Your task to perform on an android device: toggle pop-ups in chrome Image 0: 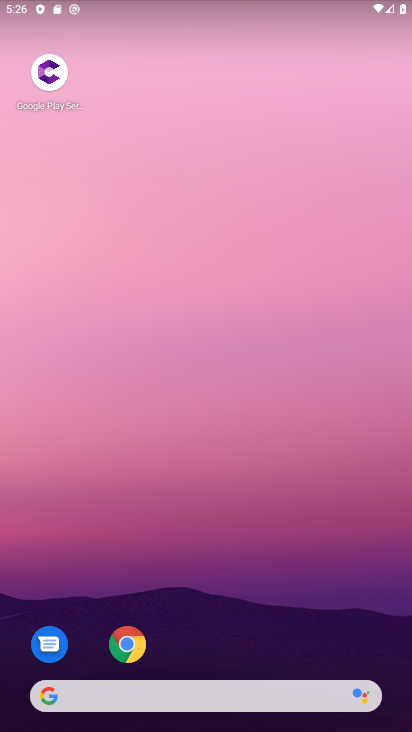
Step 0: click (127, 638)
Your task to perform on an android device: toggle pop-ups in chrome Image 1: 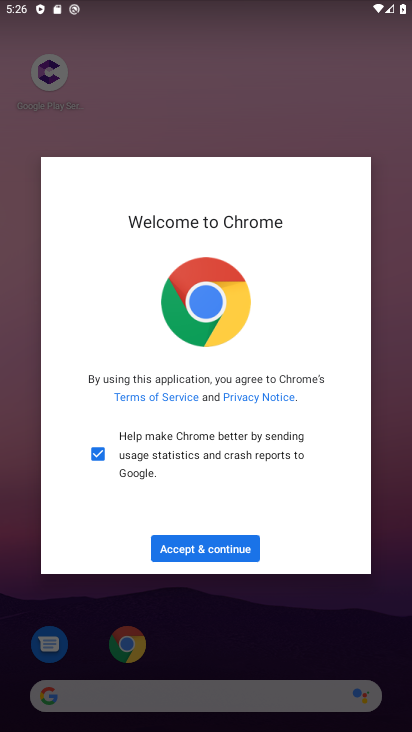
Step 1: click (195, 549)
Your task to perform on an android device: toggle pop-ups in chrome Image 2: 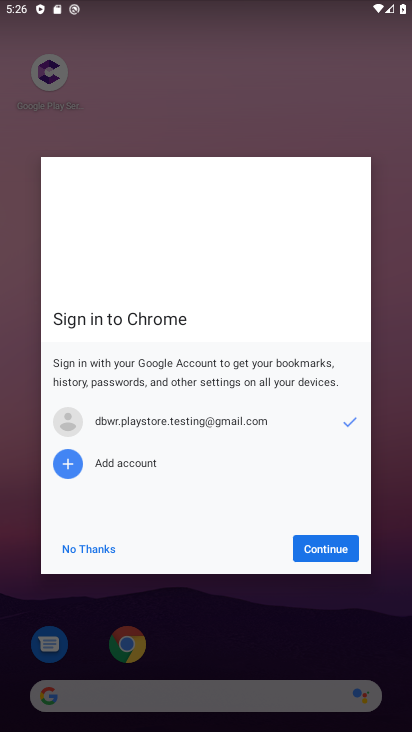
Step 2: click (316, 548)
Your task to perform on an android device: toggle pop-ups in chrome Image 3: 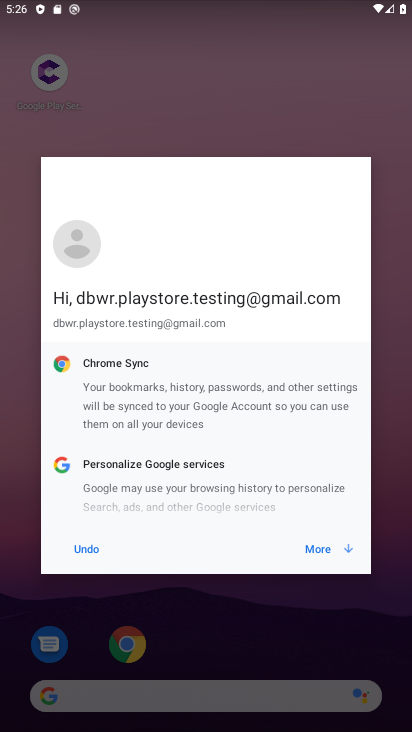
Step 3: click (316, 548)
Your task to perform on an android device: toggle pop-ups in chrome Image 4: 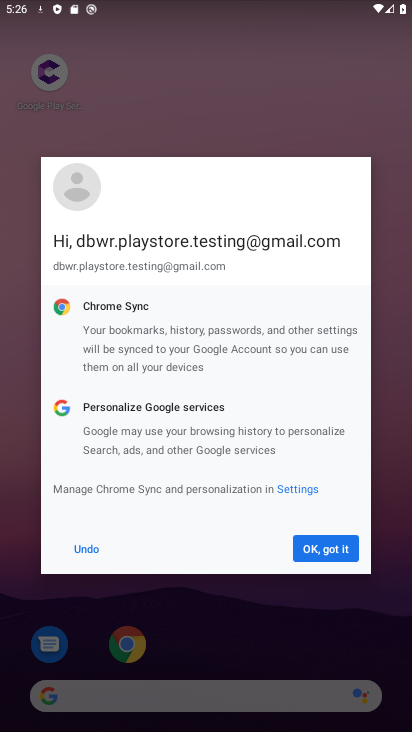
Step 4: click (316, 548)
Your task to perform on an android device: toggle pop-ups in chrome Image 5: 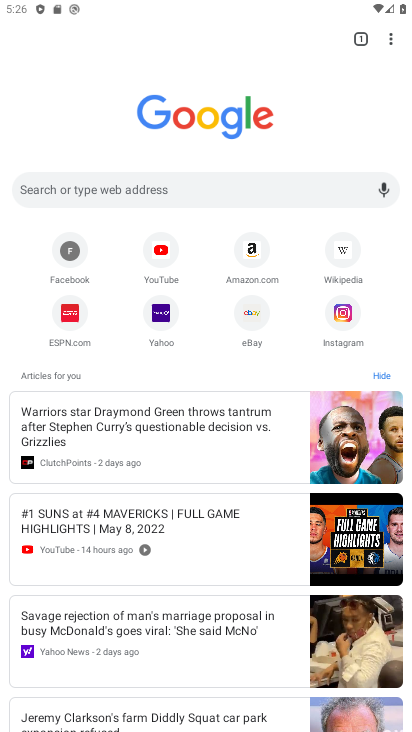
Step 5: click (390, 35)
Your task to perform on an android device: toggle pop-ups in chrome Image 6: 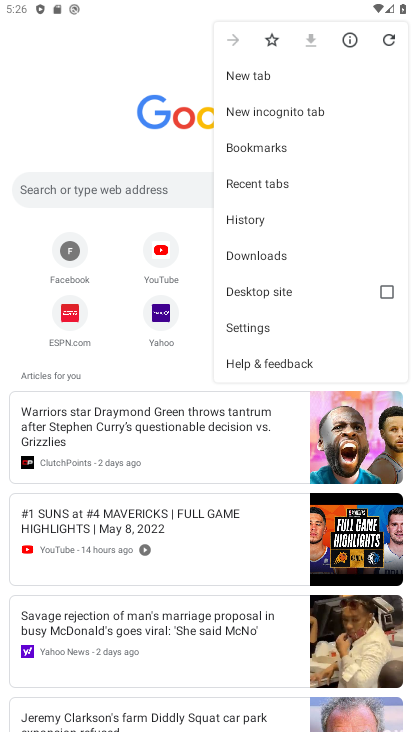
Step 6: click (271, 321)
Your task to perform on an android device: toggle pop-ups in chrome Image 7: 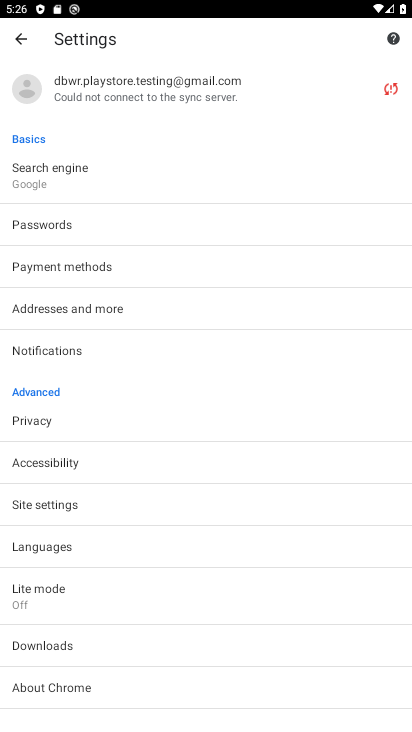
Step 7: click (55, 500)
Your task to perform on an android device: toggle pop-ups in chrome Image 8: 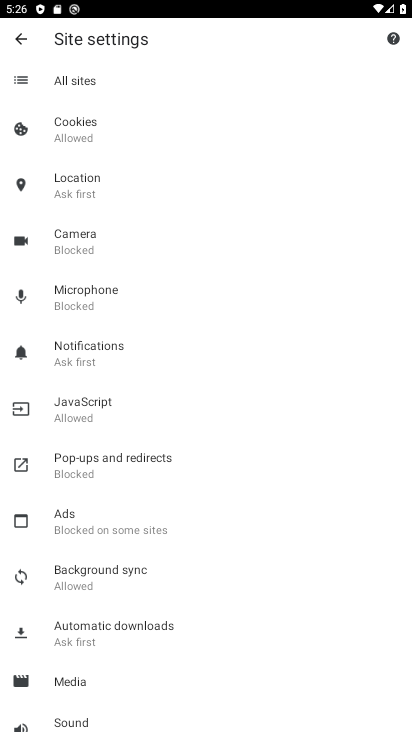
Step 8: click (133, 469)
Your task to perform on an android device: toggle pop-ups in chrome Image 9: 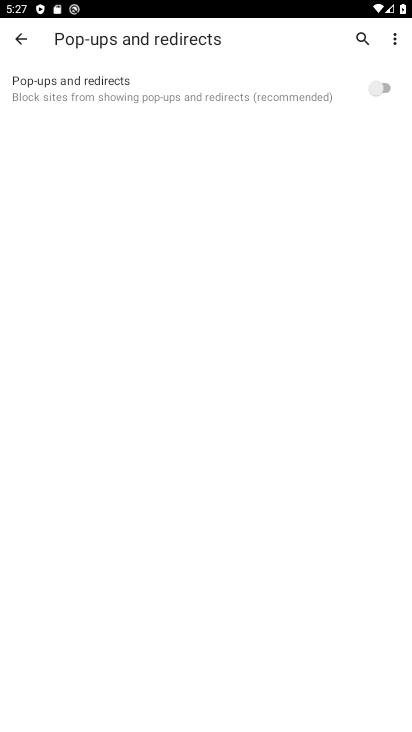
Step 9: click (385, 88)
Your task to perform on an android device: toggle pop-ups in chrome Image 10: 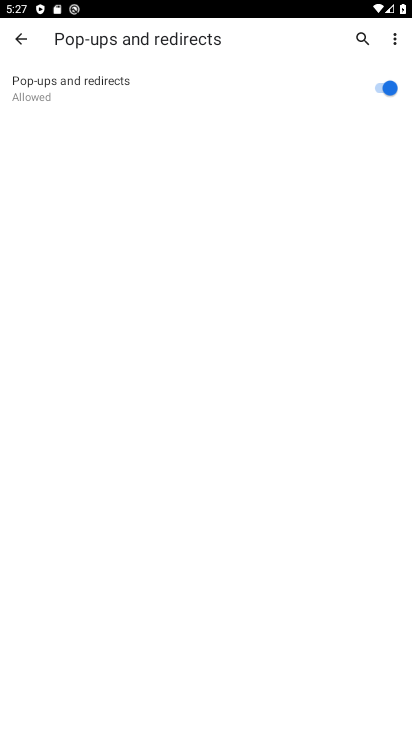
Step 10: task complete